Your task to perform on an android device: open wifi settings Image 0: 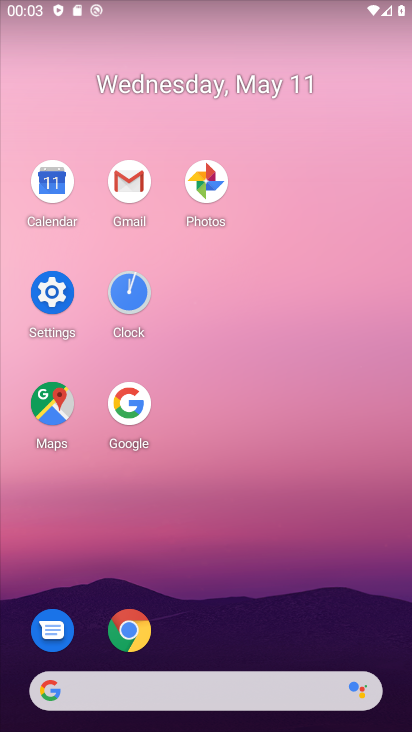
Step 0: click (57, 282)
Your task to perform on an android device: open wifi settings Image 1: 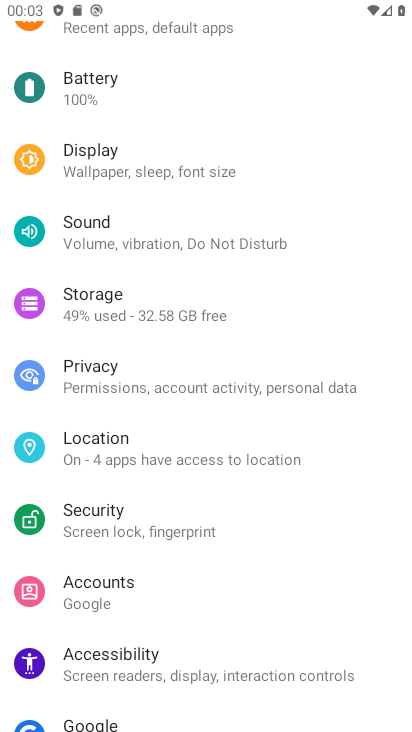
Step 1: drag from (243, 171) to (231, 397)
Your task to perform on an android device: open wifi settings Image 2: 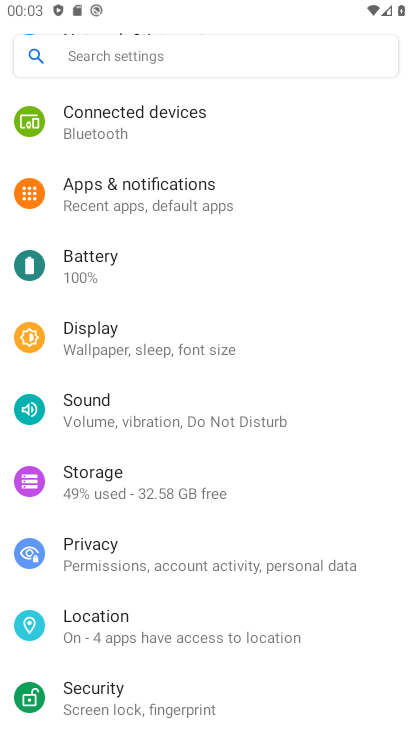
Step 2: drag from (288, 137) to (236, 448)
Your task to perform on an android device: open wifi settings Image 3: 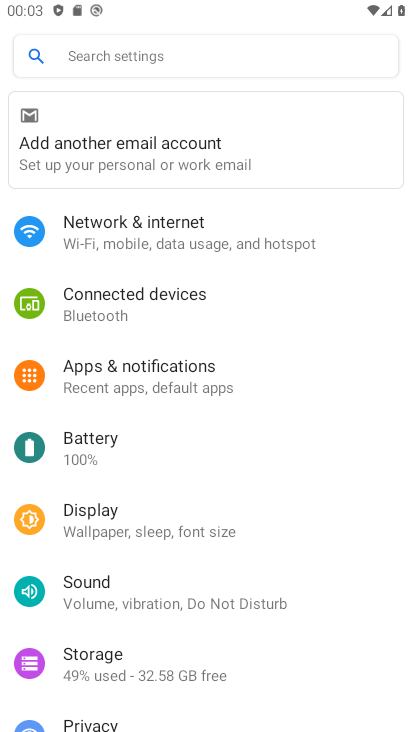
Step 3: click (207, 241)
Your task to perform on an android device: open wifi settings Image 4: 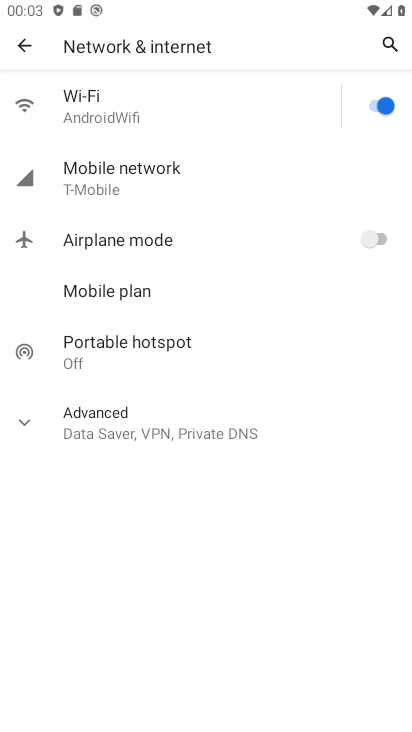
Step 4: click (104, 90)
Your task to perform on an android device: open wifi settings Image 5: 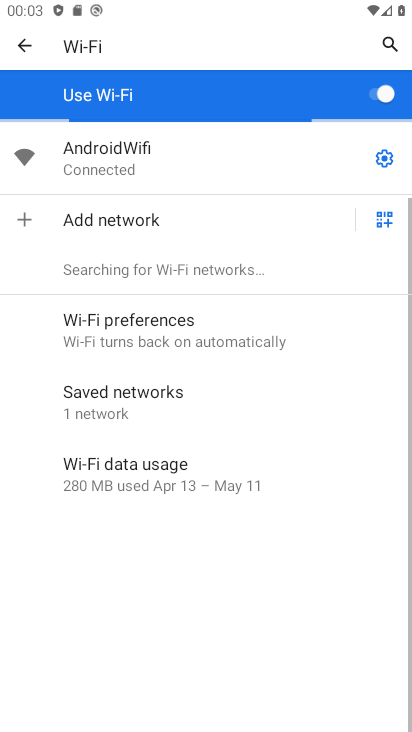
Step 5: click (391, 151)
Your task to perform on an android device: open wifi settings Image 6: 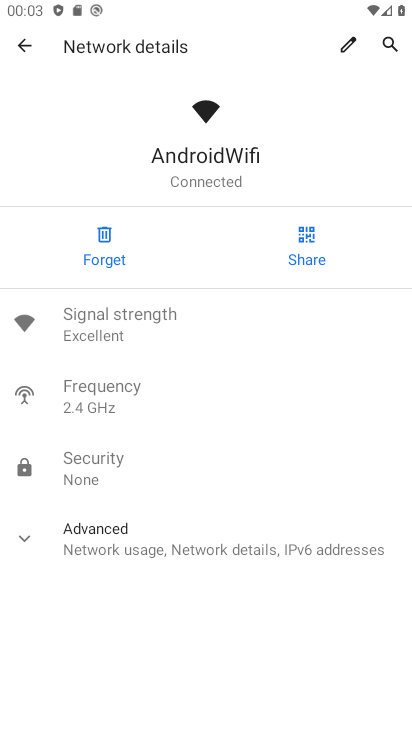
Step 6: task complete